Your task to perform on an android device: Open Google Maps Image 0: 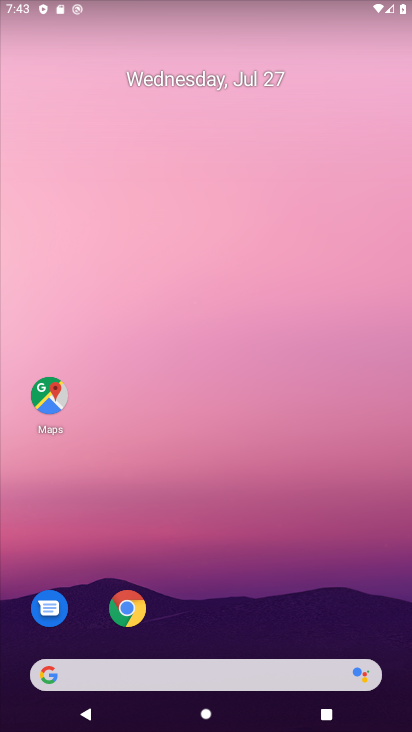
Step 0: click (39, 410)
Your task to perform on an android device: Open Google Maps Image 1: 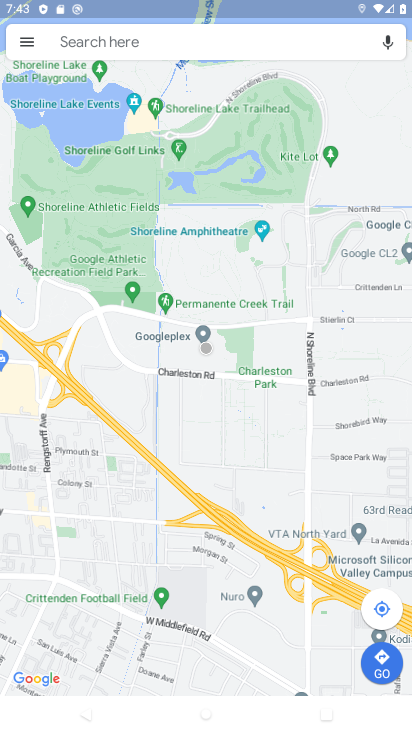
Step 1: task complete